Your task to perform on an android device: Go to ESPN.com Image 0: 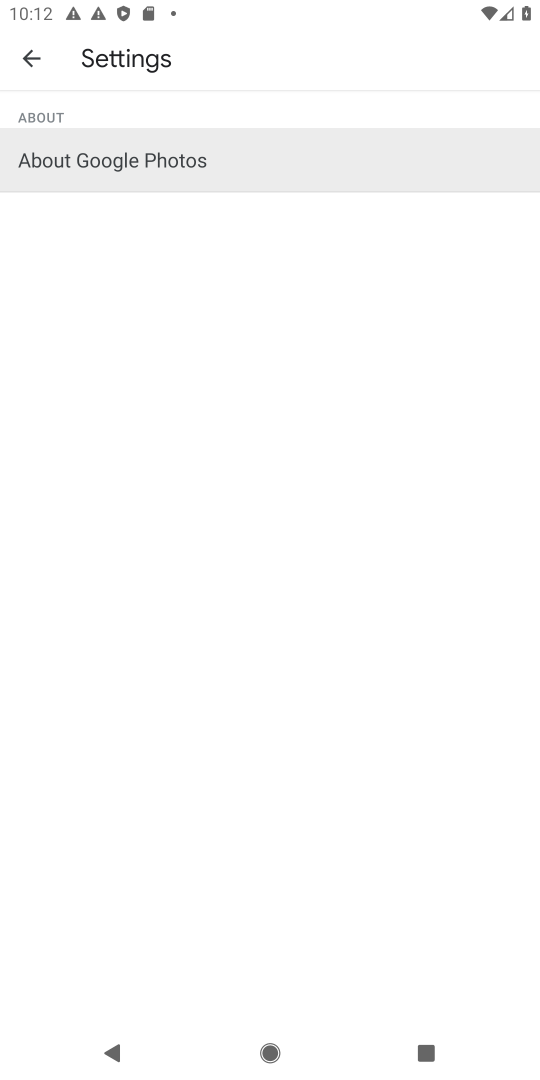
Step 0: press home button
Your task to perform on an android device: Go to ESPN.com Image 1: 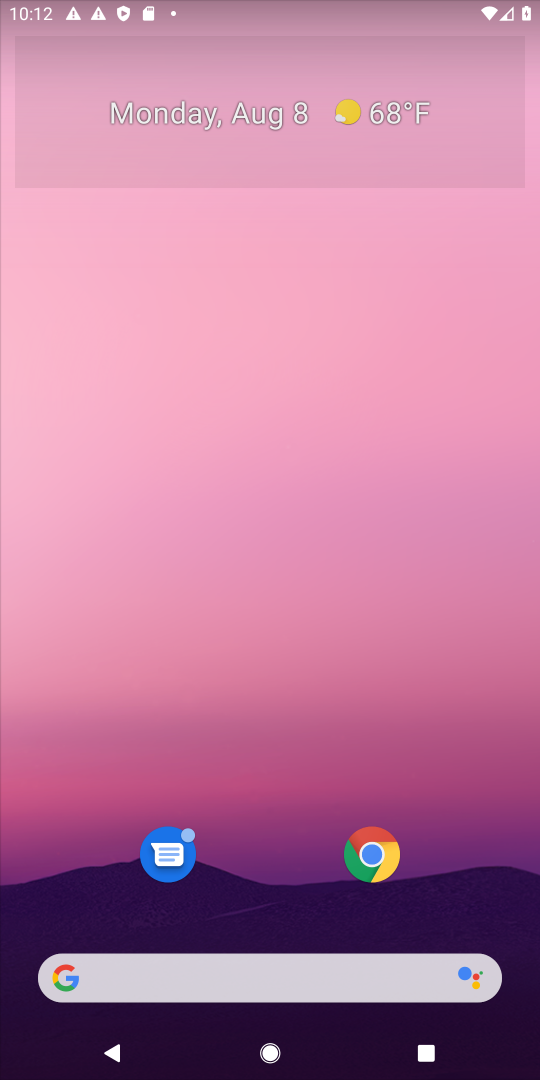
Step 1: click (299, 984)
Your task to perform on an android device: Go to ESPN.com Image 2: 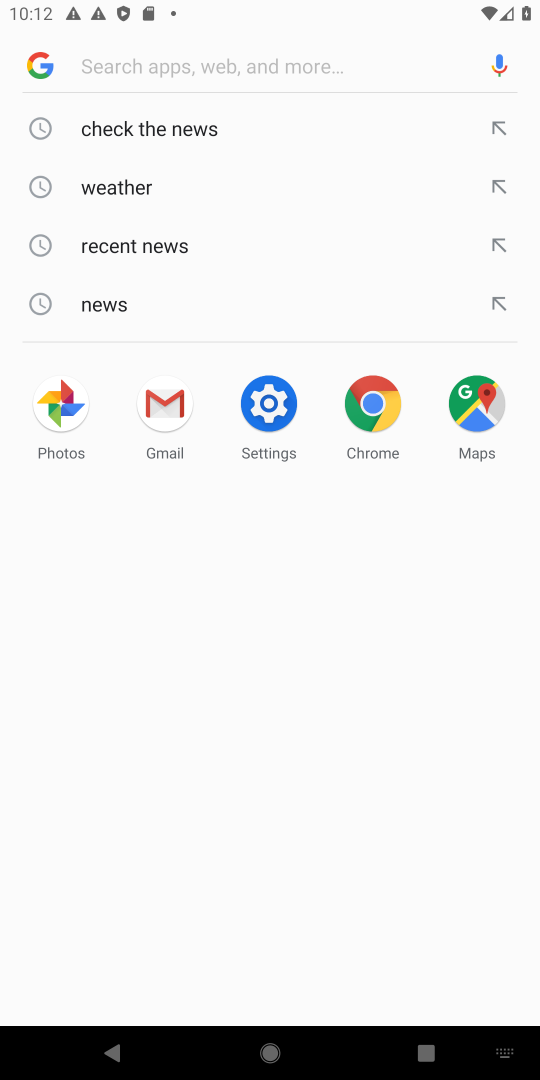
Step 2: type " ESPN.com"
Your task to perform on an android device: Go to ESPN.com Image 3: 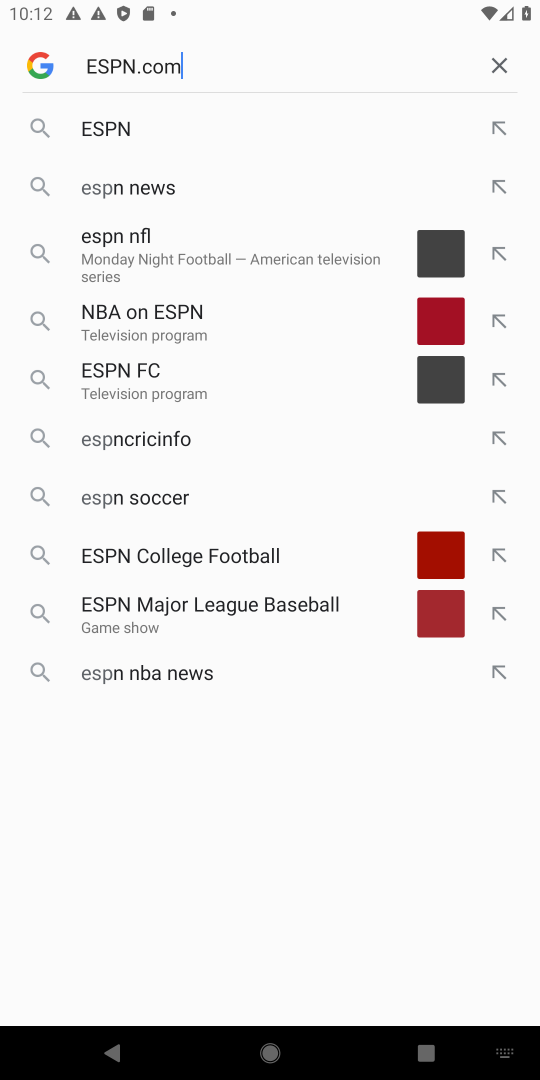
Step 3: press enter
Your task to perform on an android device: Go to ESPN.com Image 4: 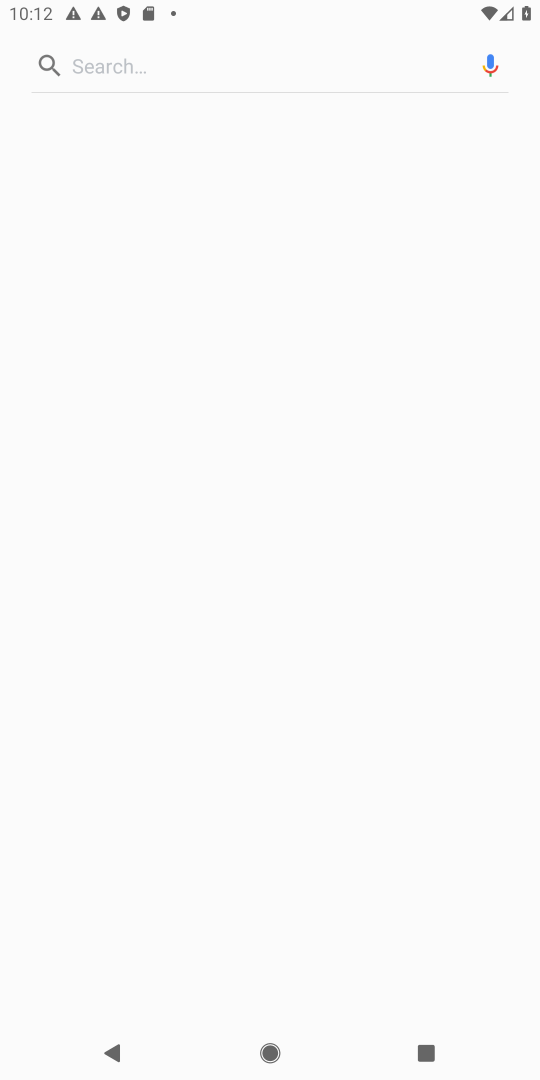
Step 4: task complete